Your task to perform on an android device: Search for Mexican restaurants on Maps Image 0: 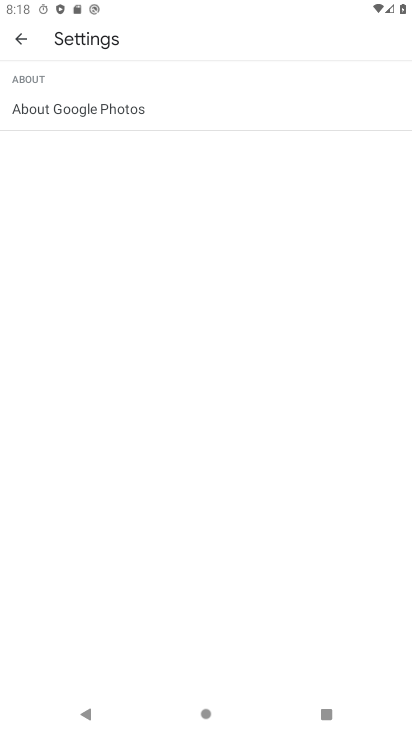
Step 0: press home button
Your task to perform on an android device: Search for Mexican restaurants on Maps Image 1: 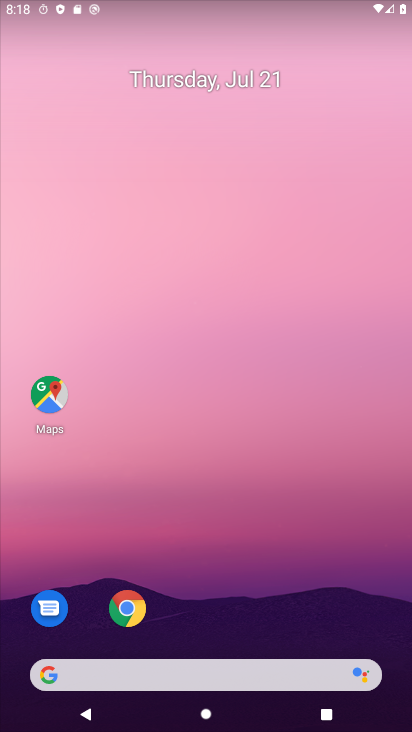
Step 1: click (56, 399)
Your task to perform on an android device: Search for Mexican restaurants on Maps Image 2: 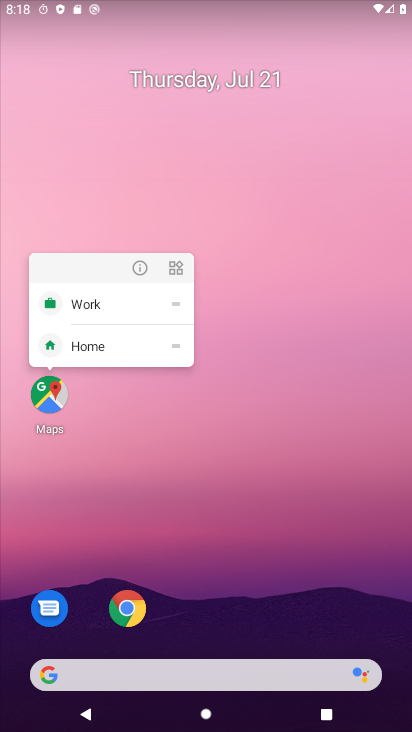
Step 2: click (56, 399)
Your task to perform on an android device: Search for Mexican restaurants on Maps Image 3: 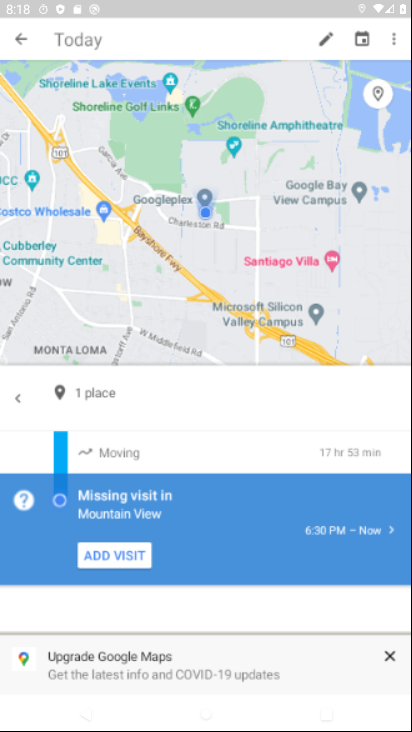
Step 3: click (19, 49)
Your task to perform on an android device: Search for Mexican restaurants on Maps Image 4: 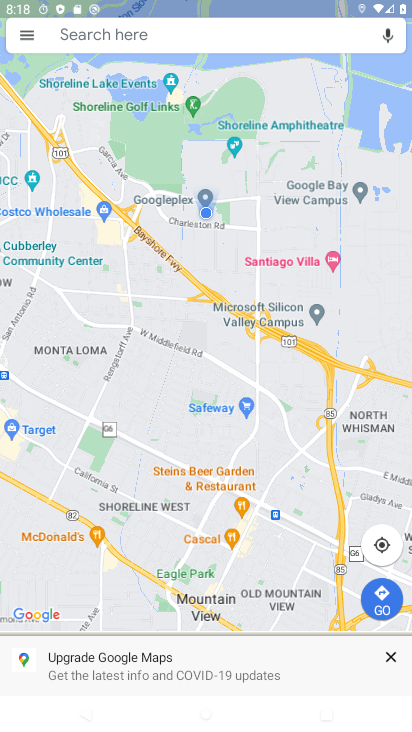
Step 4: click (19, 44)
Your task to perform on an android device: Search for Mexican restaurants on Maps Image 5: 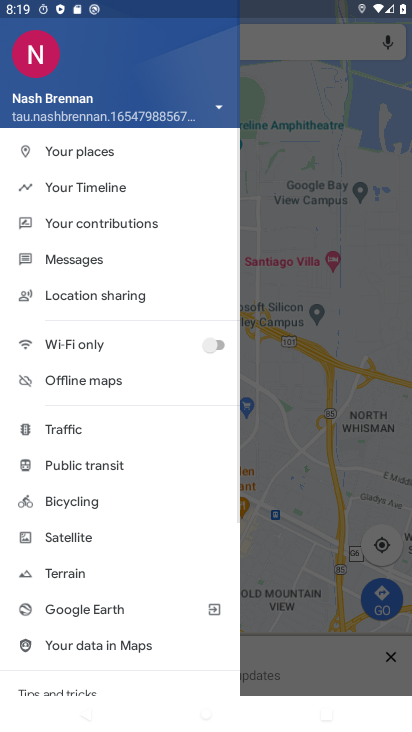
Step 5: click (283, 54)
Your task to perform on an android device: Search for Mexican restaurants on Maps Image 6: 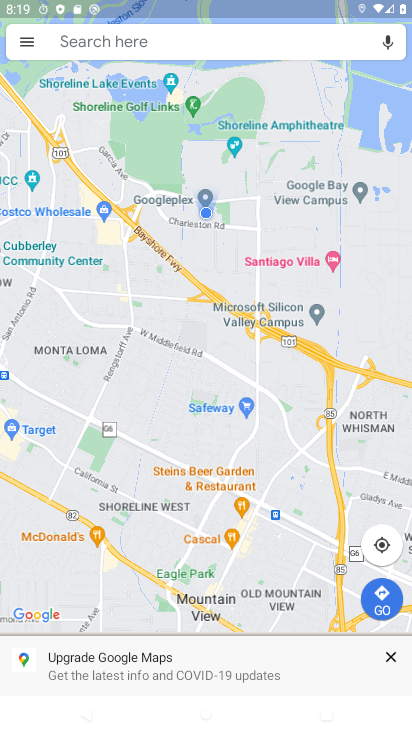
Step 6: click (192, 33)
Your task to perform on an android device: Search for Mexican restaurants on Maps Image 7: 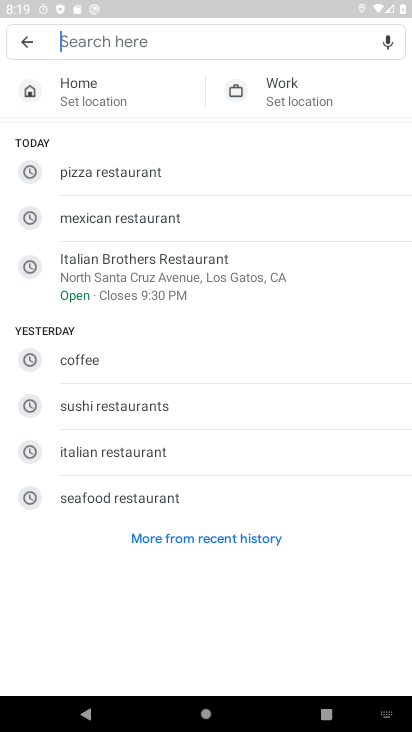
Step 7: type " Mexican restaurants"
Your task to perform on an android device: Search for Mexican restaurants on Maps Image 8: 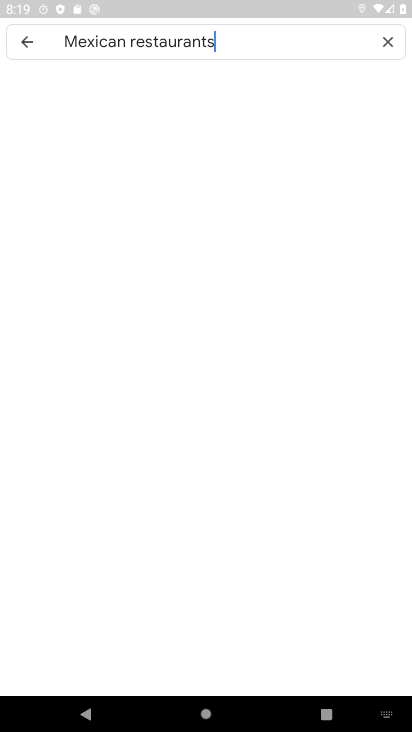
Step 8: type ""
Your task to perform on an android device: Search for Mexican restaurants on Maps Image 9: 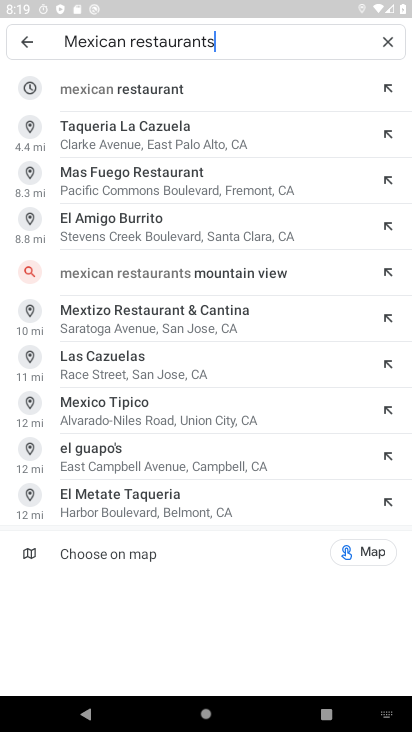
Step 9: click (106, 88)
Your task to perform on an android device: Search for Mexican restaurants on Maps Image 10: 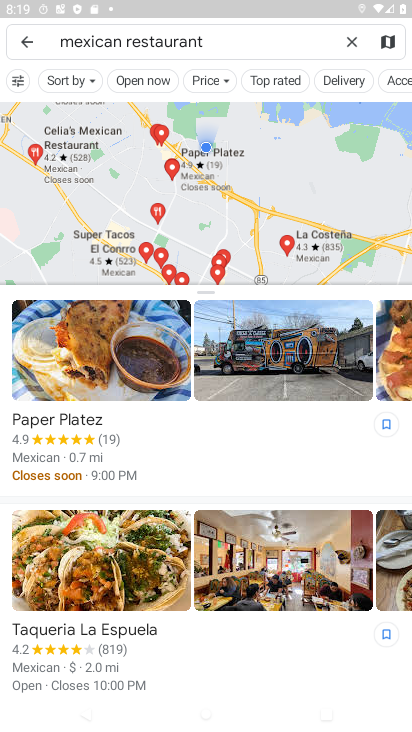
Step 10: task complete